Your task to perform on an android device: Open Google Maps and go to "Timeline" Image 0: 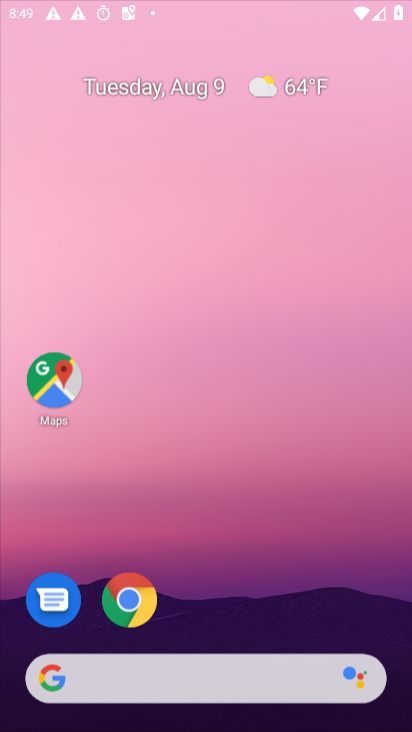
Step 0: press home button
Your task to perform on an android device: Open Google Maps and go to "Timeline" Image 1: 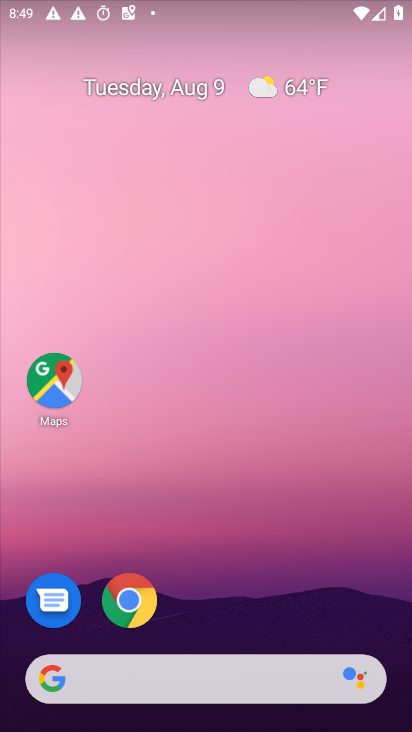
Step 1: press home button
Your task to perform on an android device: Open Google Maps and go to "Timeline" Image 2: 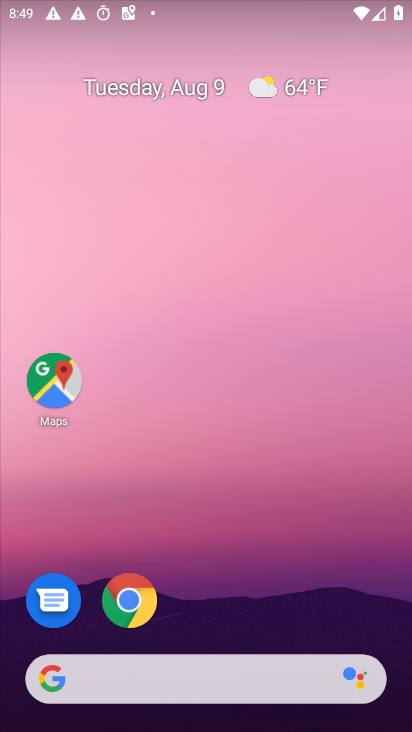
Step 2: click (58, 386)
Your task to perform on an android device: Open Google Maps and go to "Timeline" Image 3: 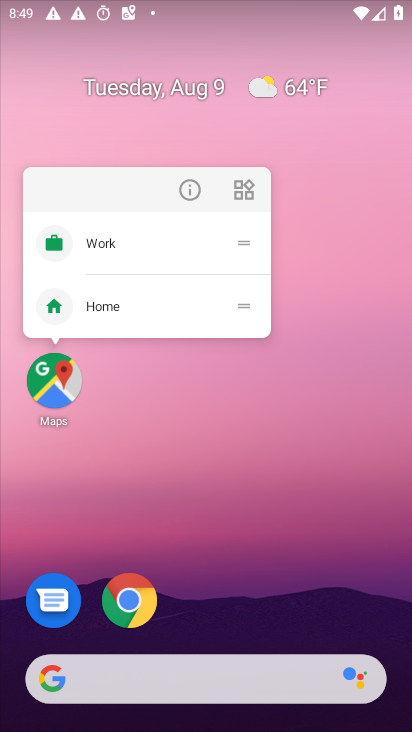
Step 3: click (55, 405)
Your task to perform on an android device: Open Google Maps and go to "Timeline" Image 4: 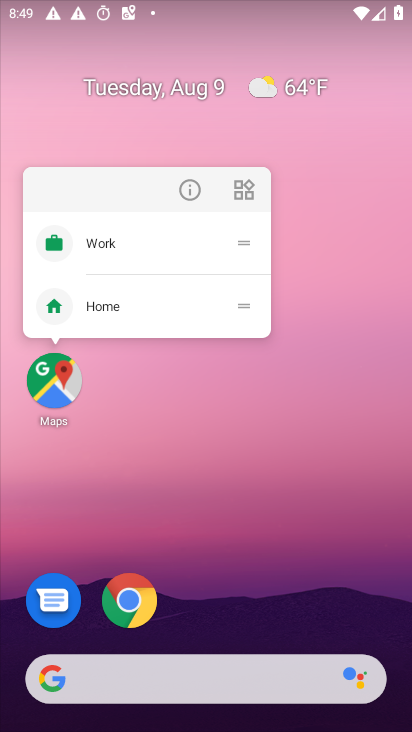
Step 4: click (55, 405)
Your task to perform on an android device: Open Google Maps and go to "Timeline" Image 5: 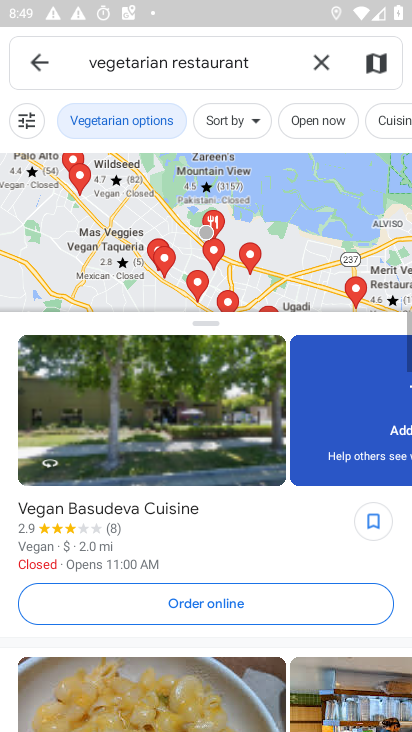
Step 5: click (43, 61)
Your task to perform on an android device: Open Google Maps and go to "Timeline" Image 6: 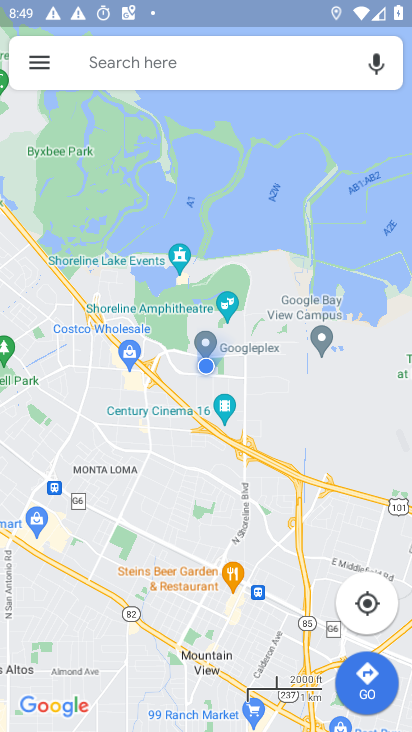
Step 6: click (31, 64)
Your task to perform on an android device: Open Google Maps and go to "Timeline" Image 7: 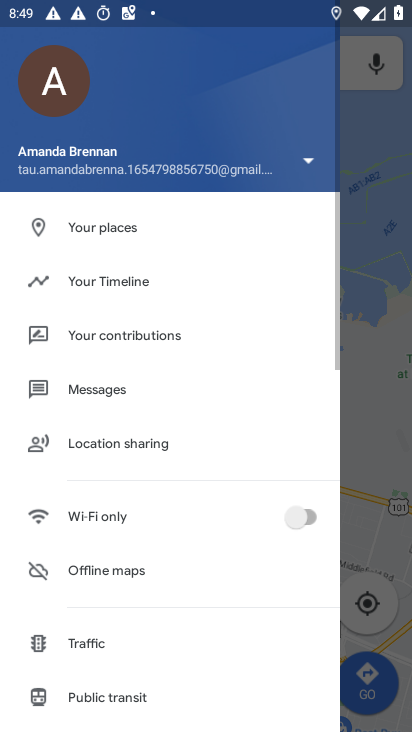
Step 7: click (97, 281)
Your task to perform on an android device: Open Google Maps and go to "Timeline" Image 8: 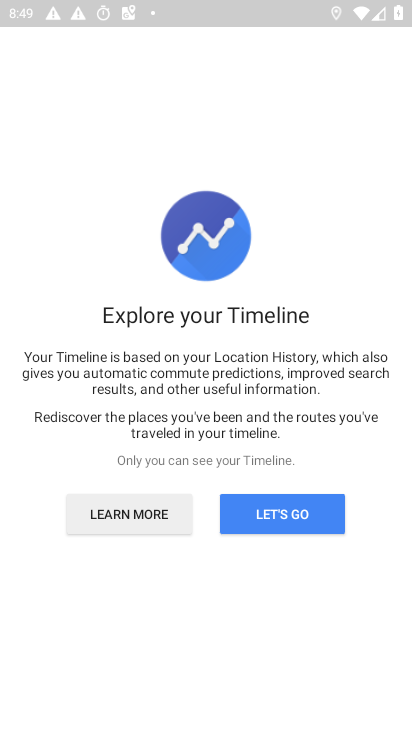
Step 8: click (301, 517)
Your task to perform on an android device: Open Google Maps and go to "Timeline" Image 9: 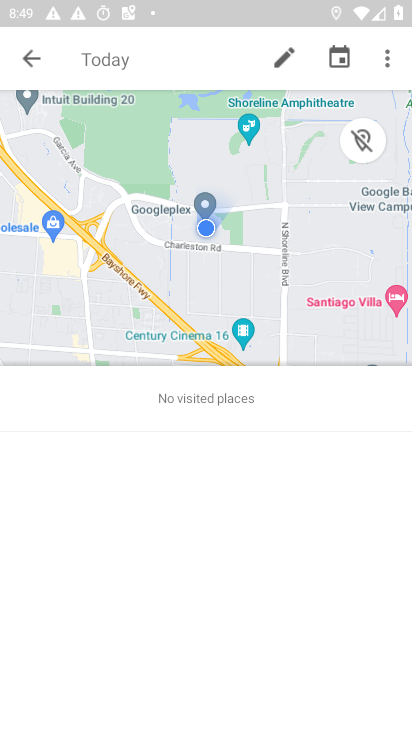
Step 9: task complete